Your task to perform on an android device: Open Yahoo.com Image 0: 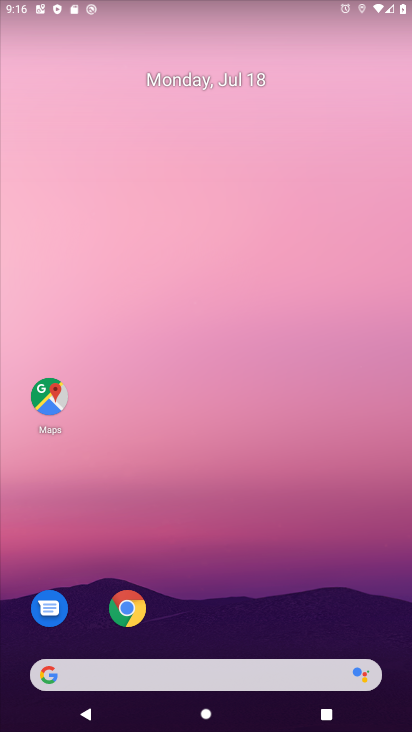
Step 0: click (93, 659)
Your task to perform on an android device: Open Yahoo.com Image 1: 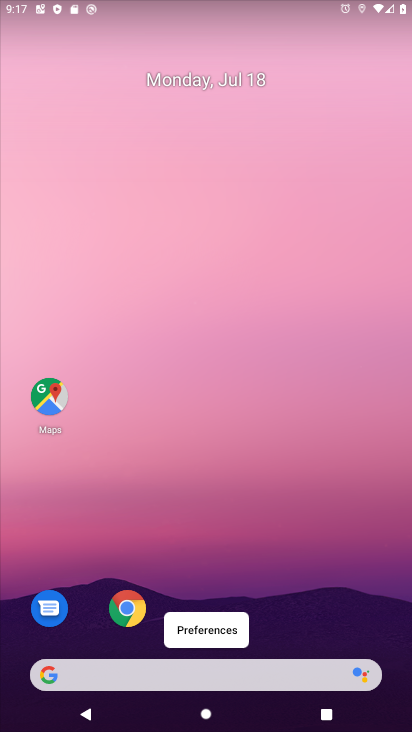
Step 1: click (90, 663)
Your task to perform on an android device: Open Yahoo.com Image 2: 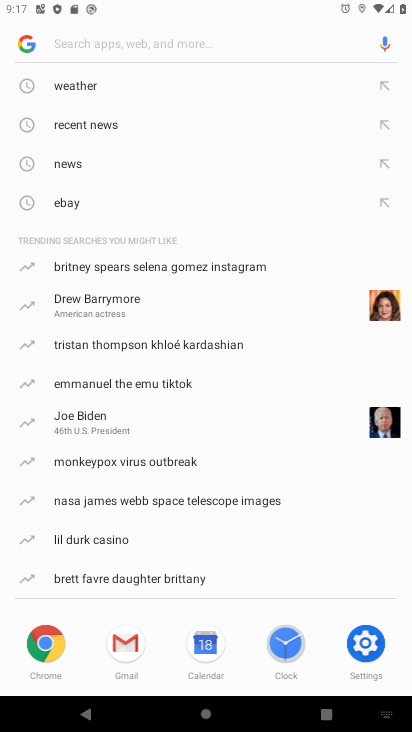
Step 2: type "Yahoo.com"
Your task to perform on an android device: Open Yahoo.com Image 3: 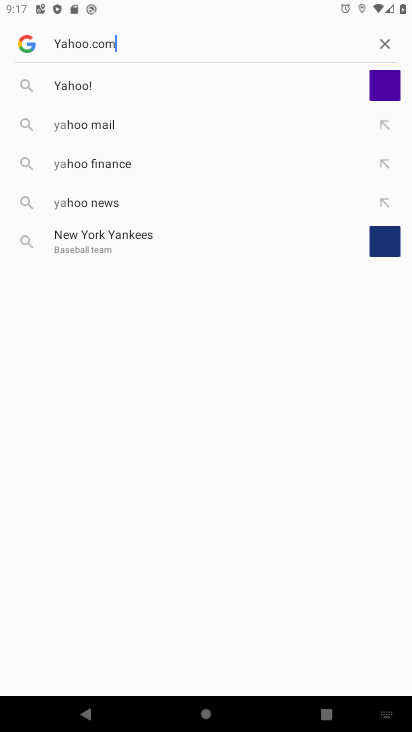
Step 3: type ""
Your task to perform on an android device: Open Yahoo.com Image 4: 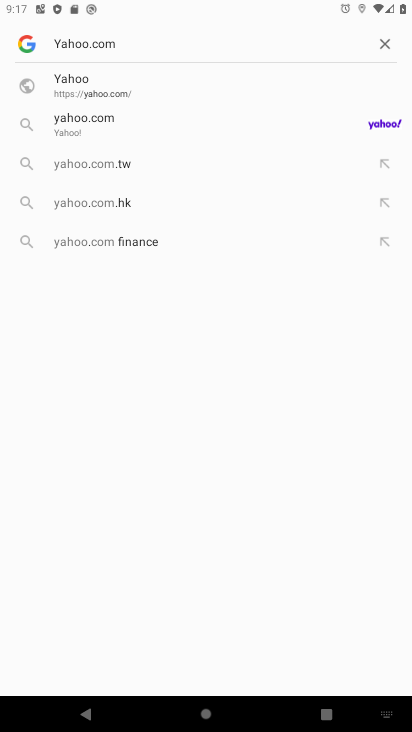
Step 4: click (73, 83)
Your task to perform on an android device: Open Yahoo.com Image 5: 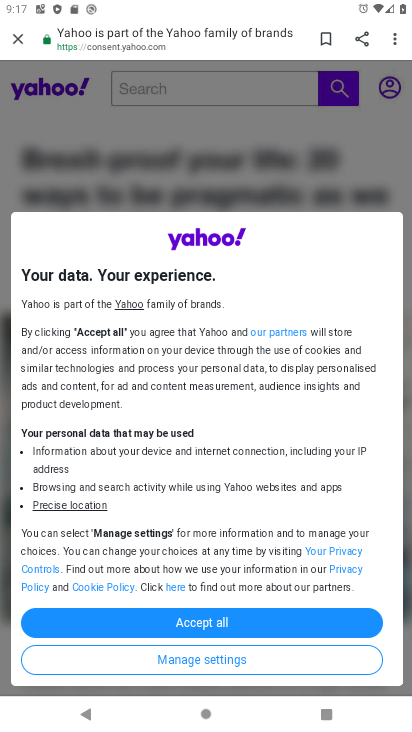
Step 5: task complete